Your task to perform on an android device: turn on data saver in the chrome app Image 0: 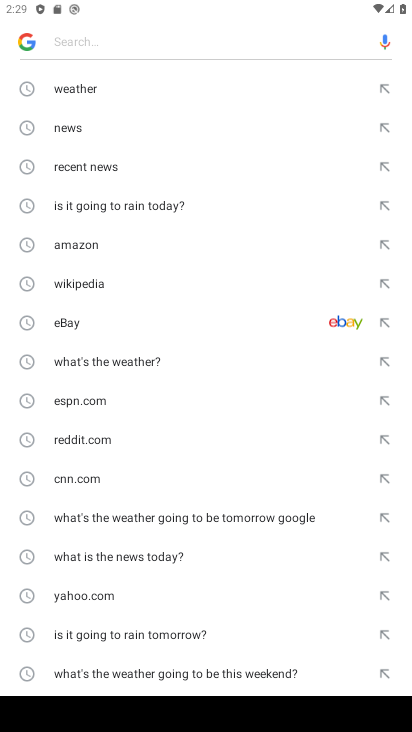
Step 0: press home button
Your task to perform on an android device: turn on data saver in the chrome app Image 1: 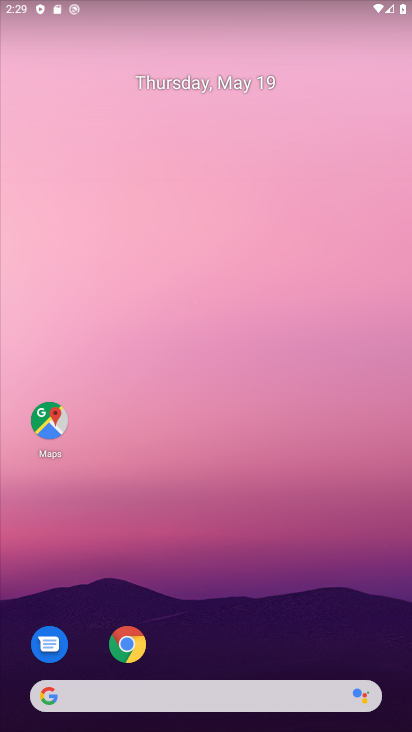
Step 1: click (118, 639)
Your task to perform on an android device: turn on data saver in the chrome app Image 2: 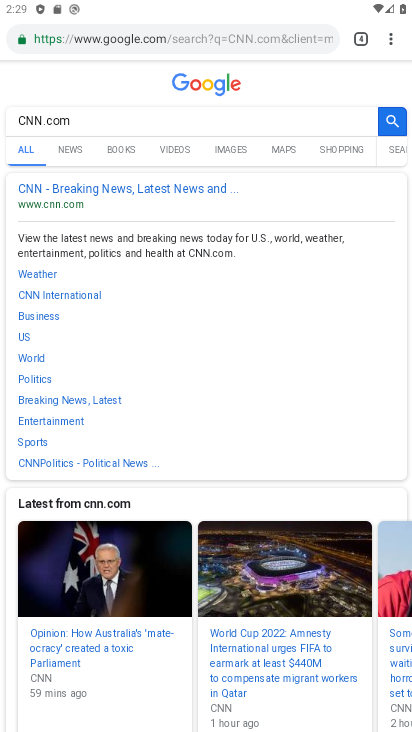
Step 2: click (378, 38)
Your task to perform on an android device: turn on data saver in the chrome app Image 3: 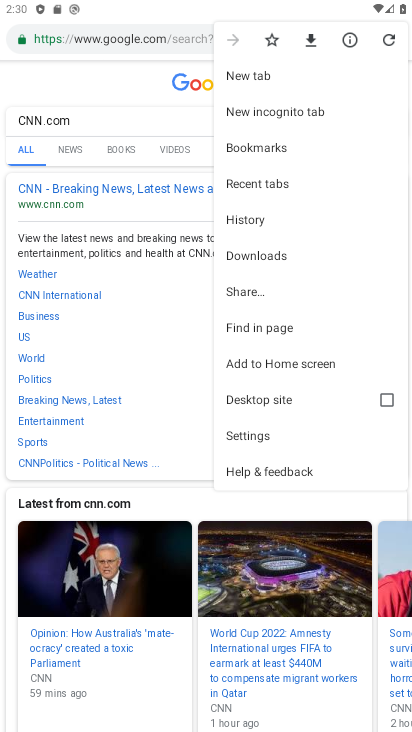
Step 3: click (279, 423)
Your task to perform on an android device: turn on data saver in the chrome app Image 4: 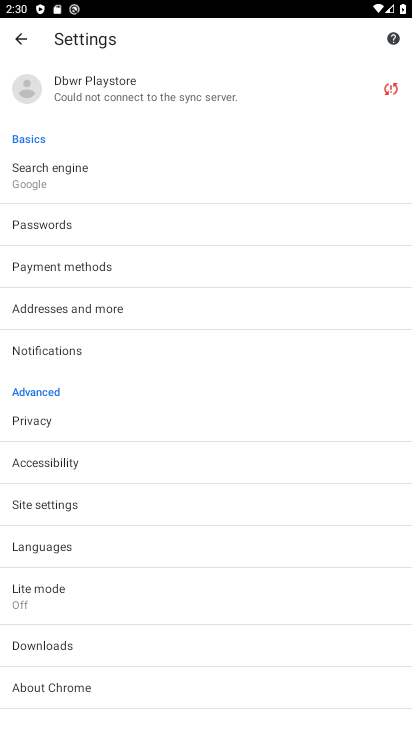
Step 4: click (105, 596)
Your task to perform on an android device: turn on data saver in the chrome app Image 5: 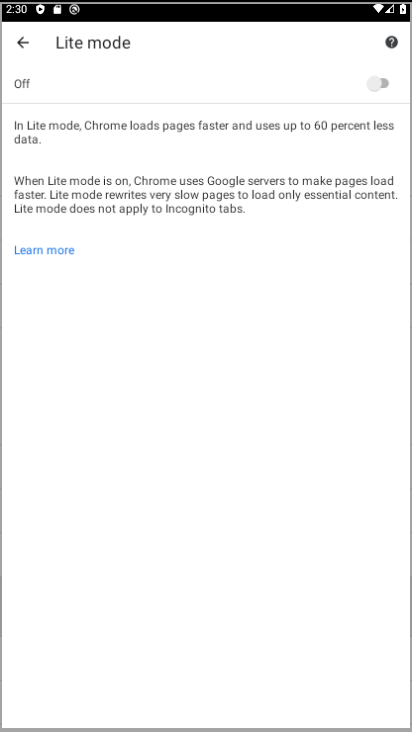
Step 5: click (107, 597)
Your task to perform on an android device: turn on data saver in the chrome app Image 6: 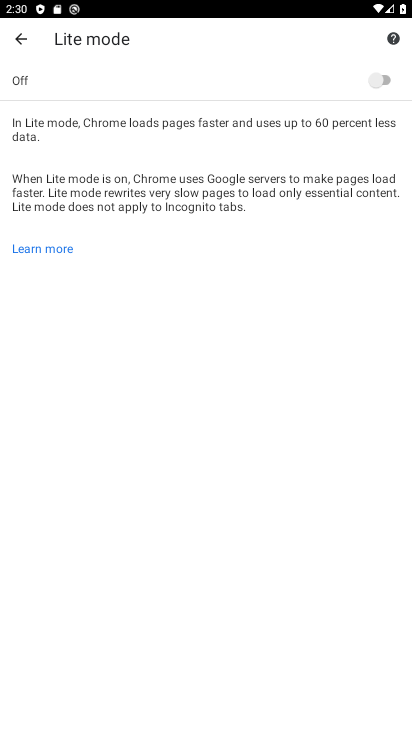
Step 6: click (387, 89)
Your task to perform on an android device: turn on data saver in the chrome app Image 7: 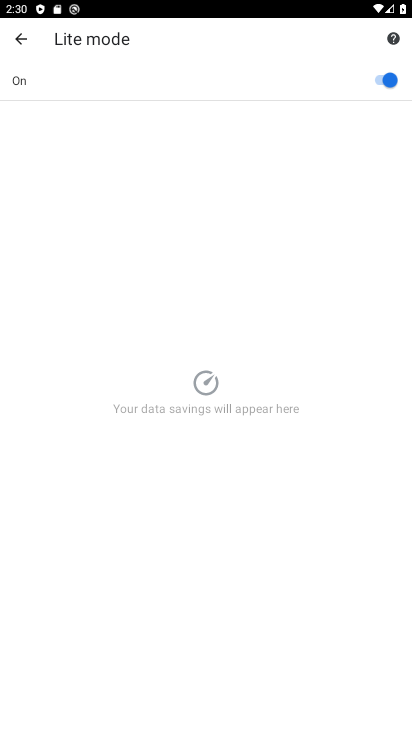
Step 7: task complete